Your task to perform on an android device: set the stopwatch Image 0: 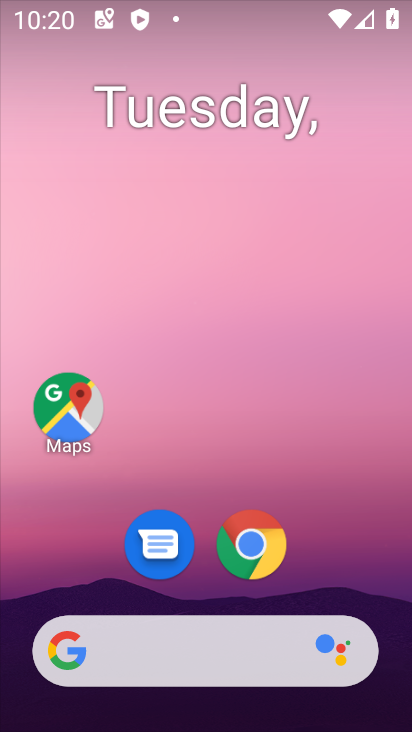
Step 0: drag from (389, 617) to (327, 105)
Your task to perform on an android device: set the stopwatch Image 1: 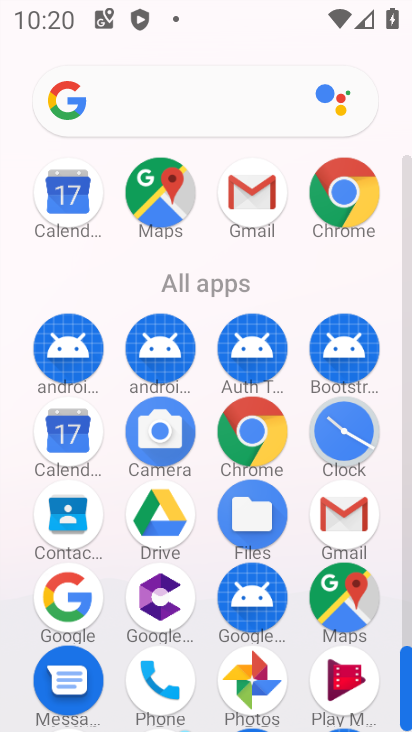
Step 1: click (352, 441)
Your task to perform on an android device: set the stopwatch Image 2: 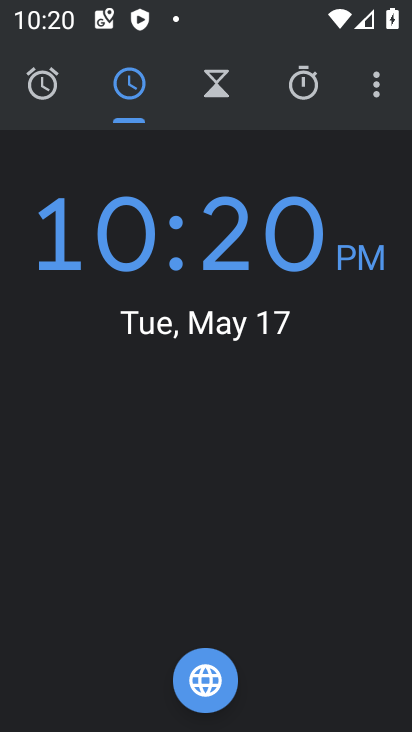
Step 2: click (312, 98)
Your task to perform on an android device: set the stopwatch Image 3: 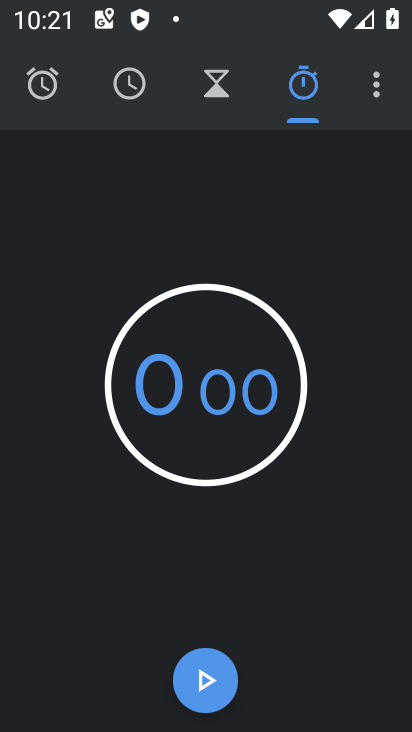
Step 3: click (220, 690)
Your task to perform on an android device: set the stopwatch Image 4: 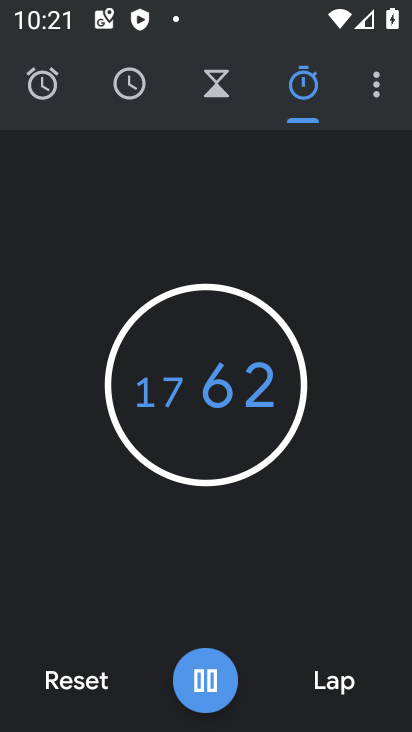
Step 4: task complete